Your task to perform on an android device: turn pop-ups on in chrome Image 0: 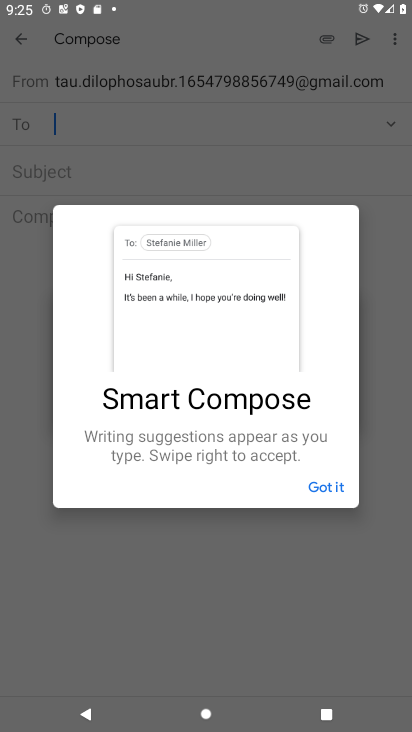
Step 0: press home button
Your task to perform on an android device: turn pop-ups on in chrome Image 1: 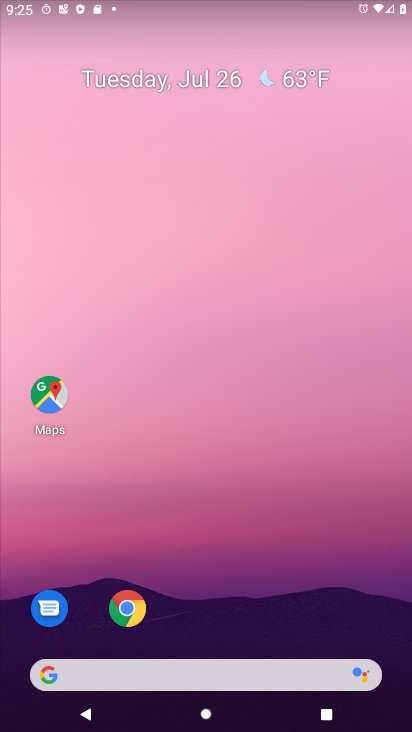
Step 1: click (138, 616)
Your task to perform on an android device: turn pop-ups on in chrome Image 2: 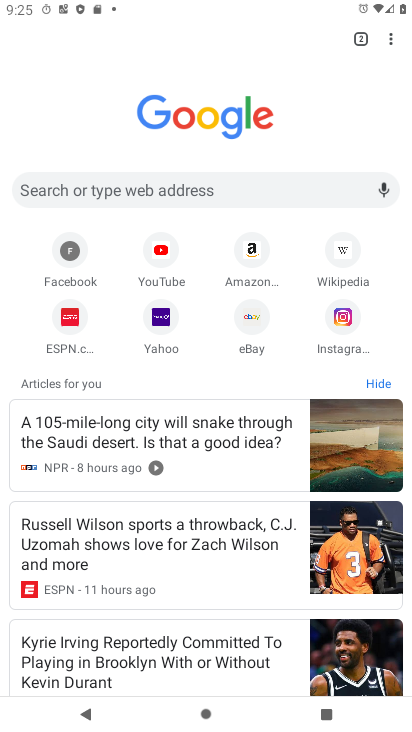
Step 2: click (398, 38)
Your task to perform on an android device: turn pop-ups on in chrome Image 3: 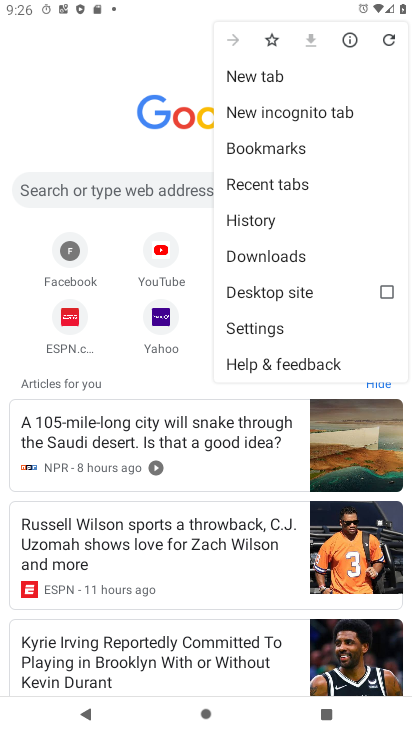
Step 3: click (277, 327)
Your task to perform on an android device: turn pop-ups on in chrome Image 4: 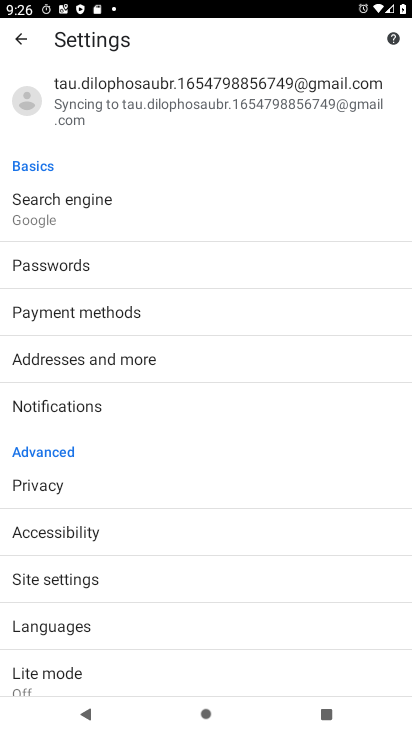
Step 4: click (91, 587)
Your task to perform on an android device: turn pop-ups on in chrome Image 5: 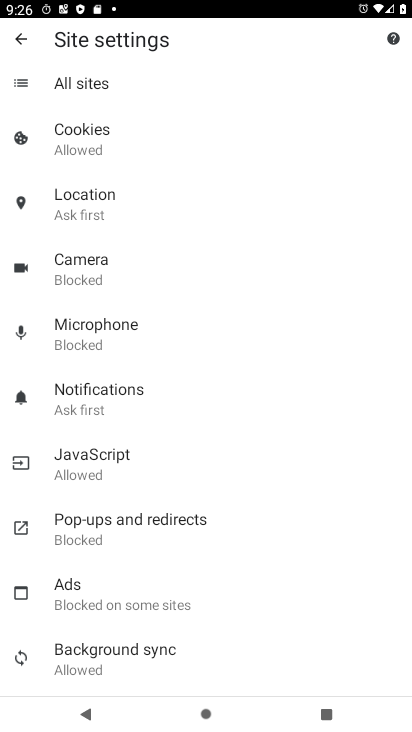
Step 5: click (154, 531)
Your task to perform on an android device: turn pop-ups on in chrome Image 6: 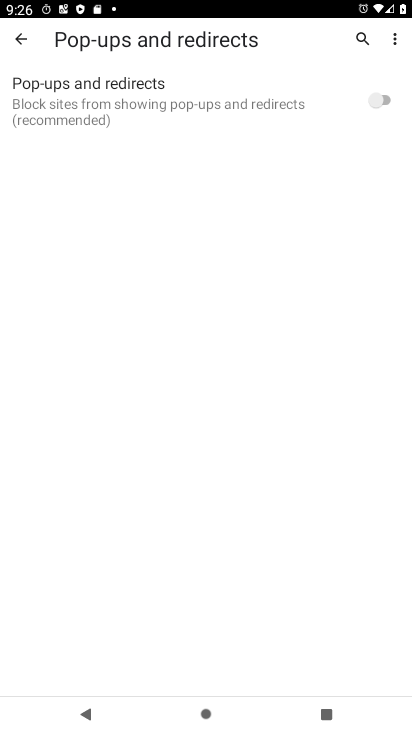
Step 6: click (382, 100)
Your task to perform on an android device: turn pop-ups on in chrome Image 7: 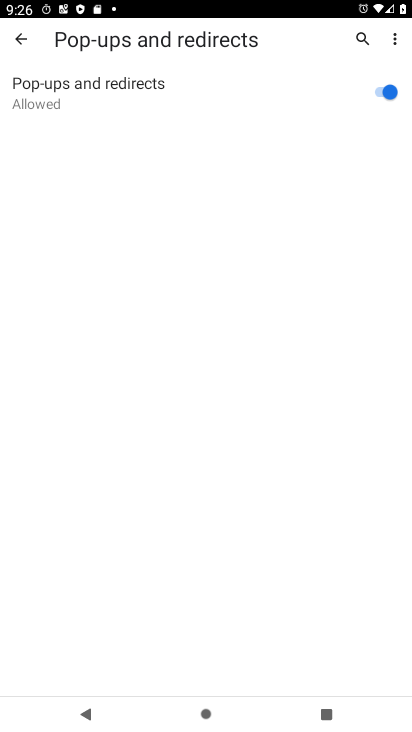
Step 7: task complete